Your task to perform on an android device: find snoozed emails in the gmail app Image 0: 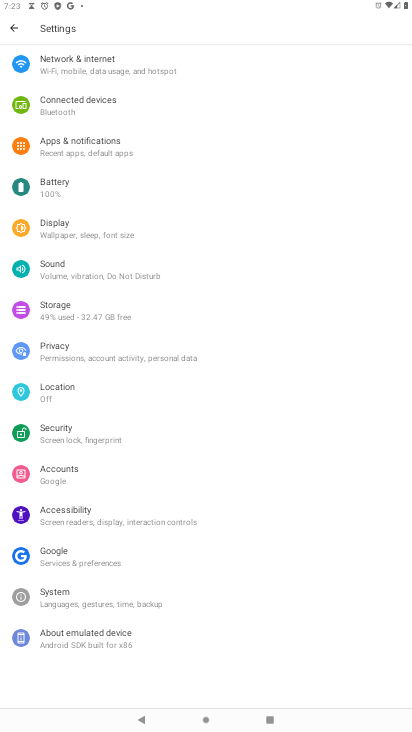
Step 0: press home button
Your task to perform on an android device: find snoozed emails in the gmail app Image 1: 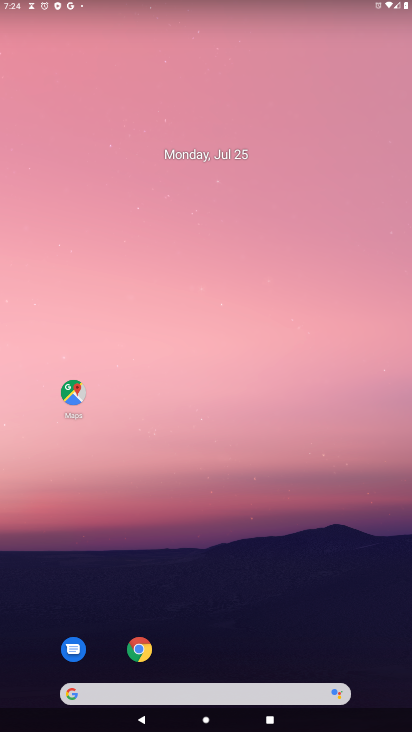
Step 1: drag from (132, 675) to (131, 280)
Your task to perform on an android device: find snoozed emails in the gmail app Image 2: 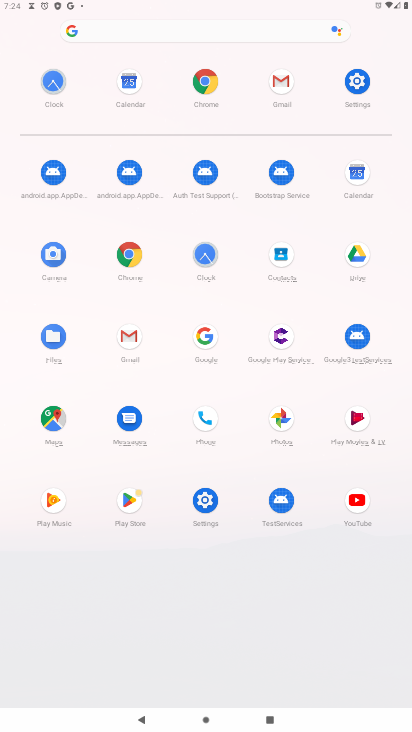
Step 2: click (124, 334)
Your task to perform on an android device: find snoozed emails in the gmail app Image 3: 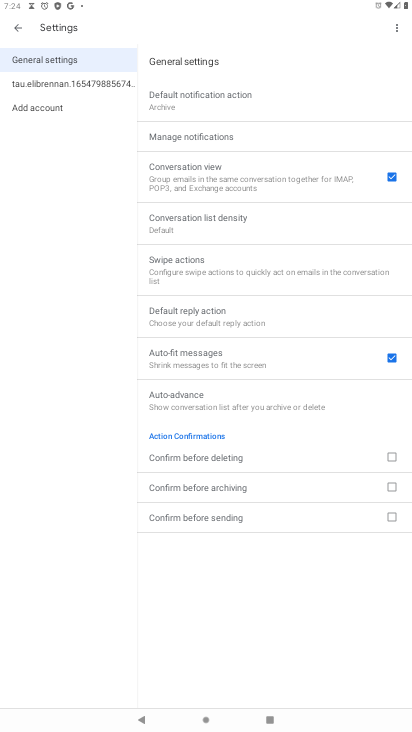
Step 3: click (64, 86)
Your task to perform on an android device: find snoozed emails in the gmail app Image 4: 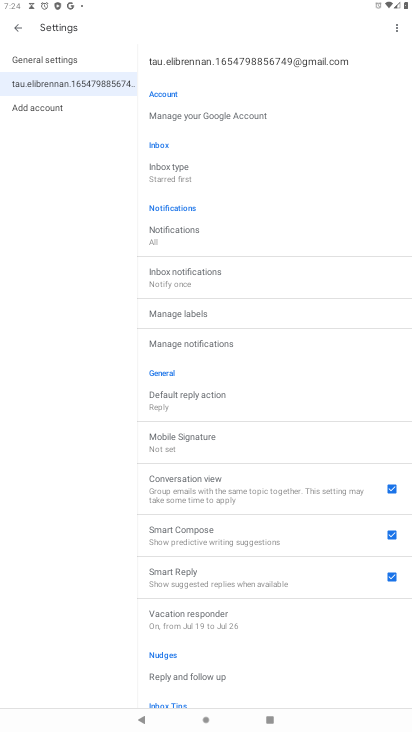
Step 4: press back button
Your task to perform on an android device: find snoozed emails in the gmail app Image 5: 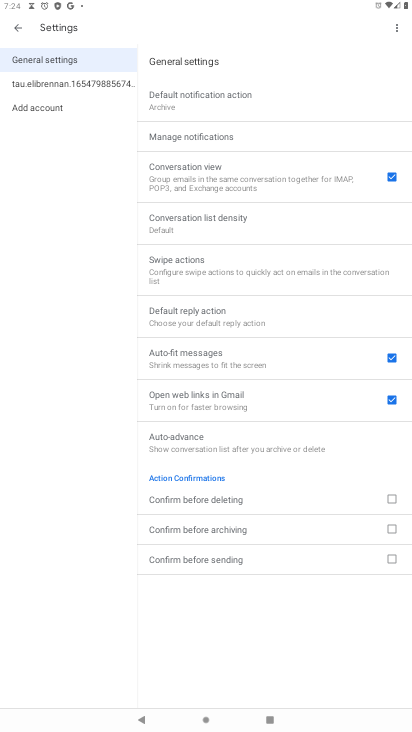
Step 5: press back button
Your task to perform on an android device: find snoozed emails in the gmail app Image 6: 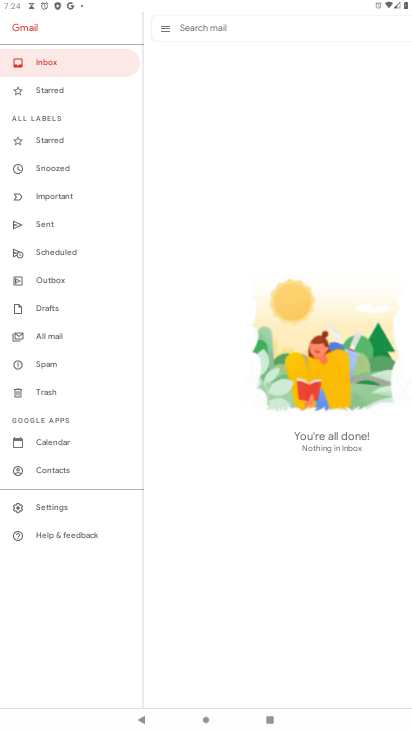
Step 6: click (38, 177)
Your task to perform on an android device: find snoozed emails in the gmail app Image 7: 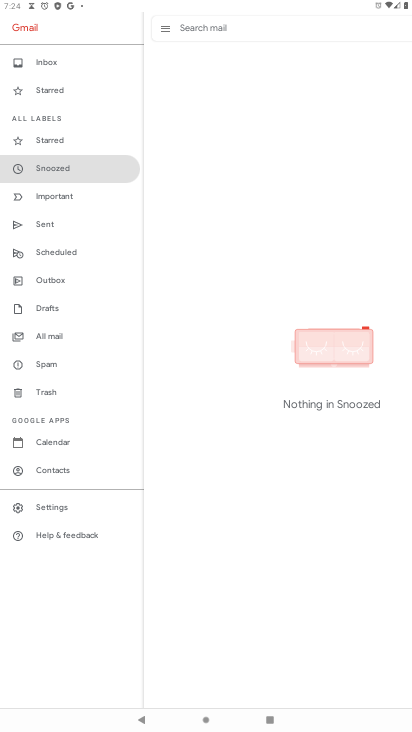
Step 7: task complete